Your task to perform on an android device: uninstall "Skype" Image 0: 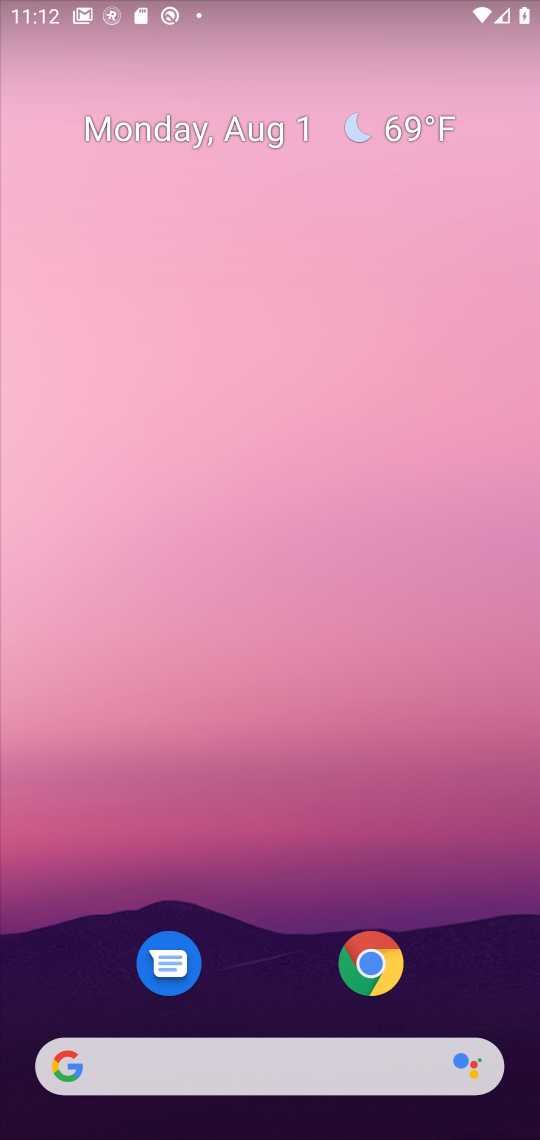
Step 0: drag from (260, 842) to (267, 13)
Your task to perform on an android device: uninstall "Skype" Image 1: 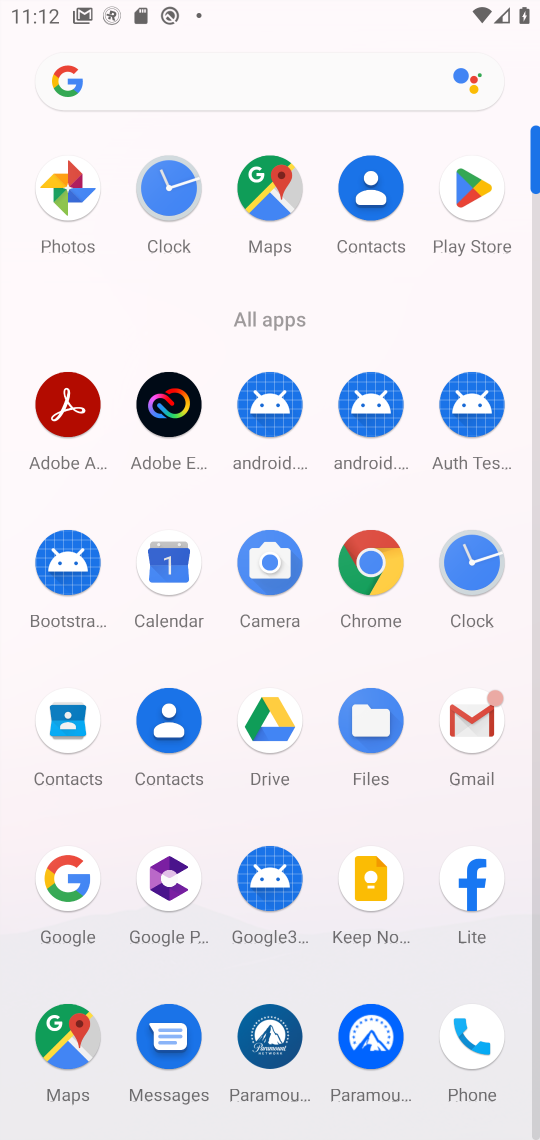
Step 1: click (487, 221)
Your task to perform on an android device: uninstall "Skype" Image 2: 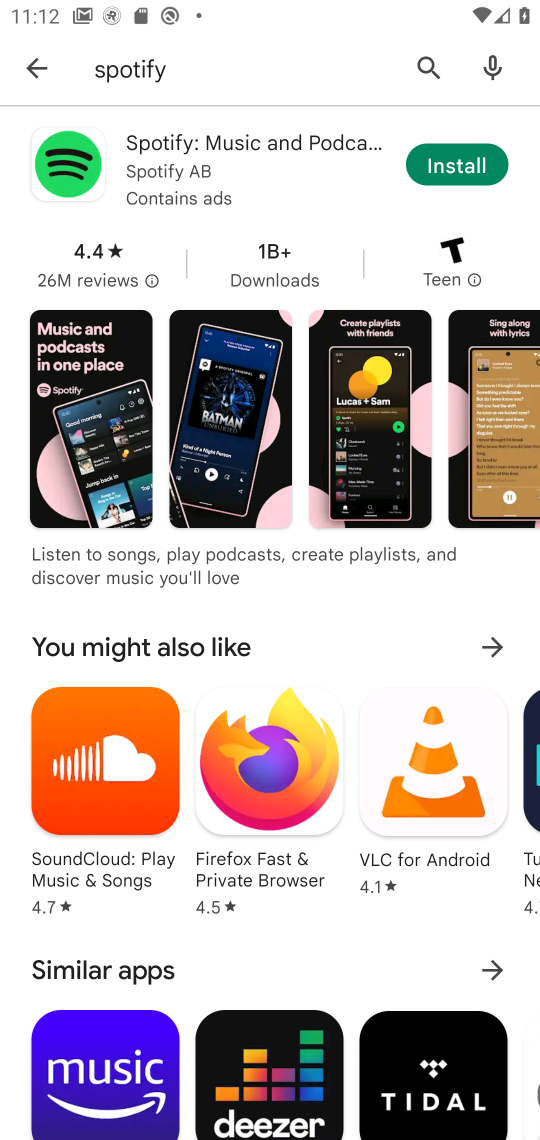
Step 2: click (198, 71)
Your task to perform on an android device: uninstall "Skype" Image 3: 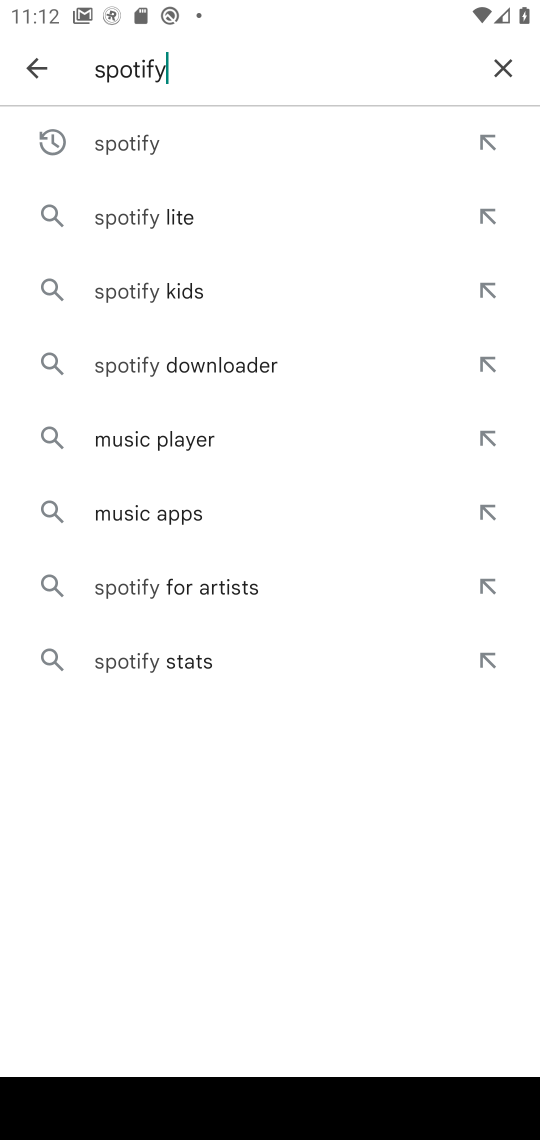
Step 3: click (503, 51)
Your task to perform on an android device: uninstall "Skype" Image 4: 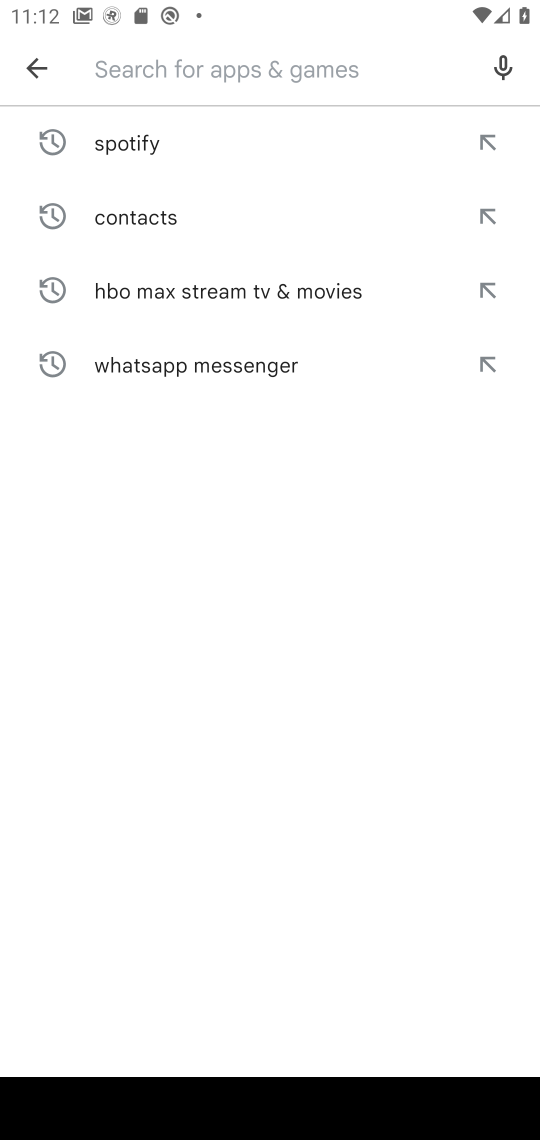
Step 4: type "akype"
Your task to perform on an android device: uninstall "Skype" Image 5: 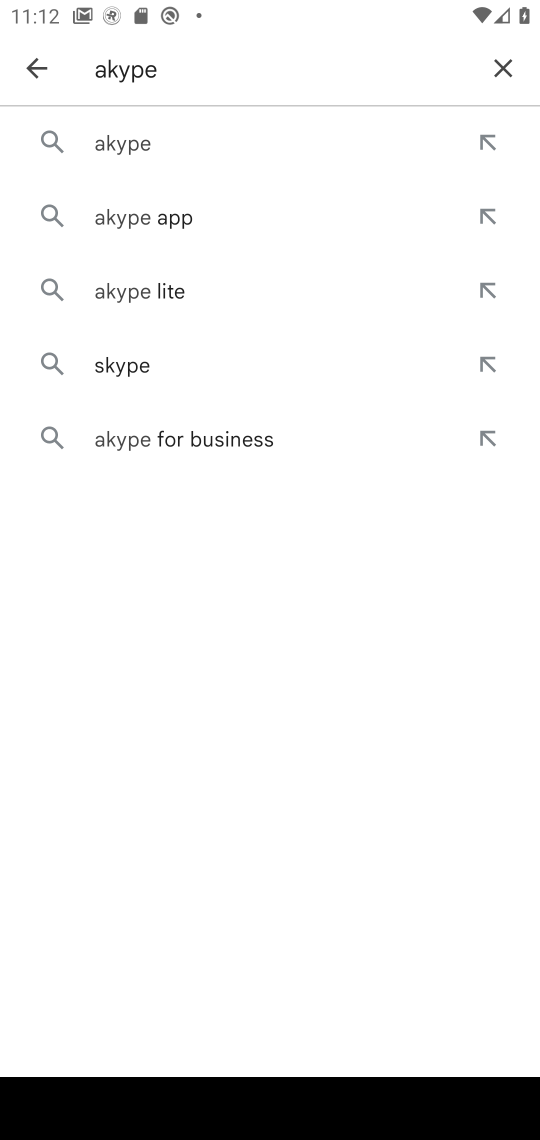
Step 5: click (117, 367)
Your task to perform on an android device: uninstall "Skype" Image 6: 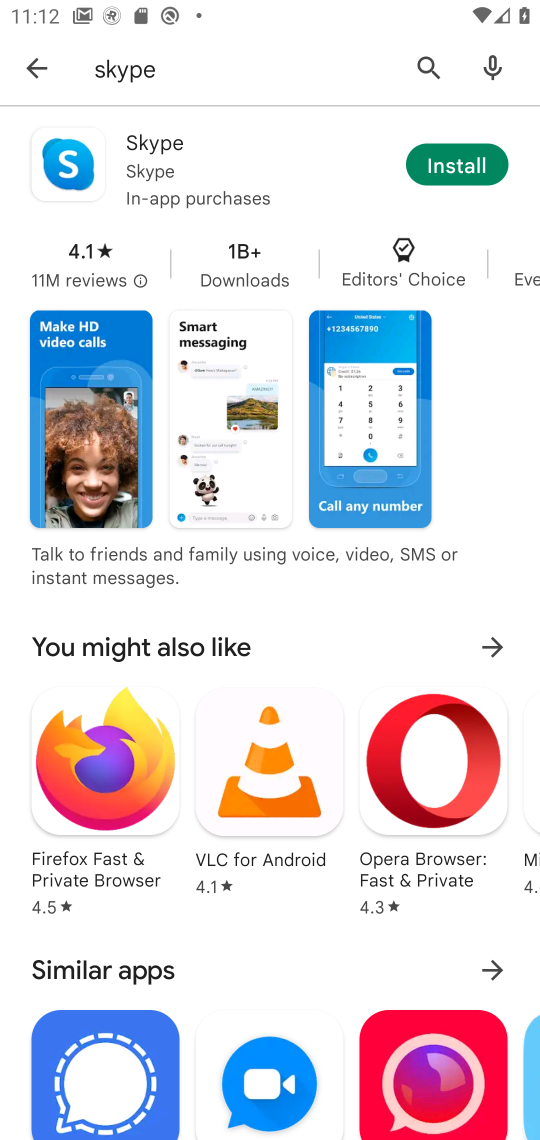
Step 6: task complete